Your task to perform on an android device: Turn on the flashlight Image 0: 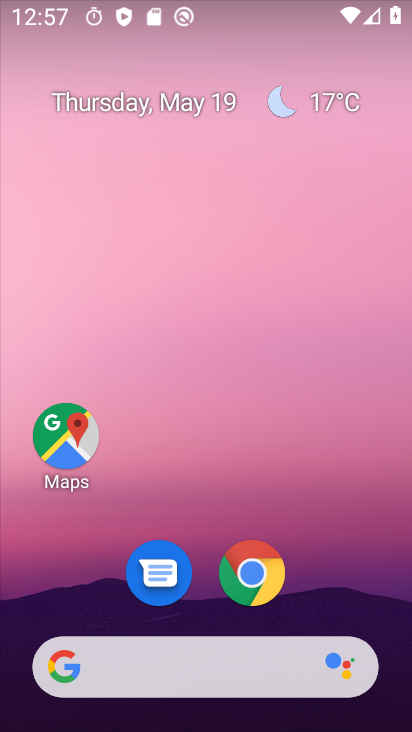
Step 0: drag from (269, 604) to (253, 37)
Your task to perform on an android device: Turn on the flashlight Image 1: 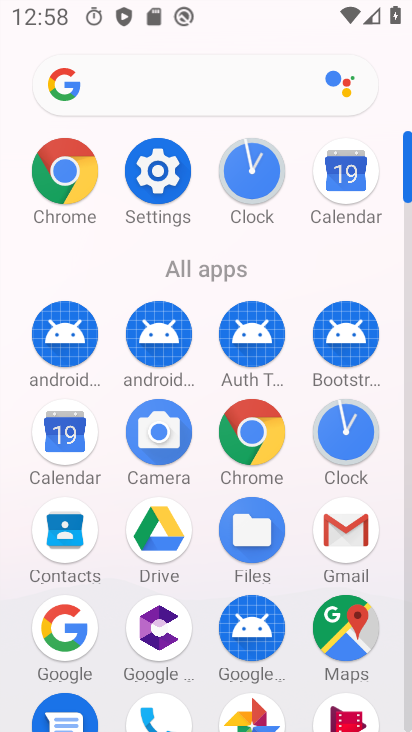
Step 1: click (157, 194)
Your task to perform on an android device: Turn on the flashlight Image 2: 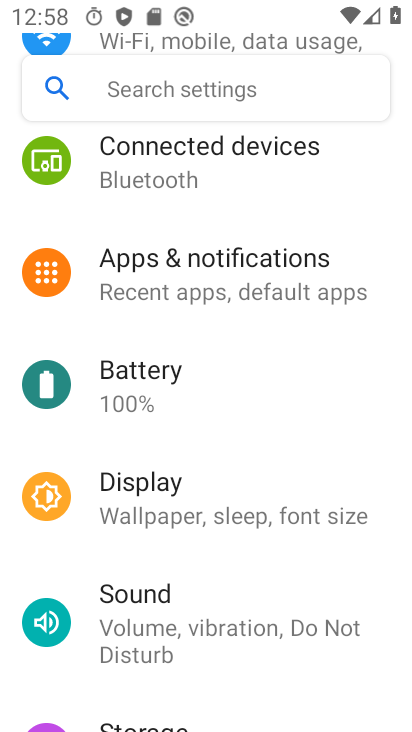
Step 2: click (187, 96)
Your task to perform on an android device: Turn on the flashlight Image 3: 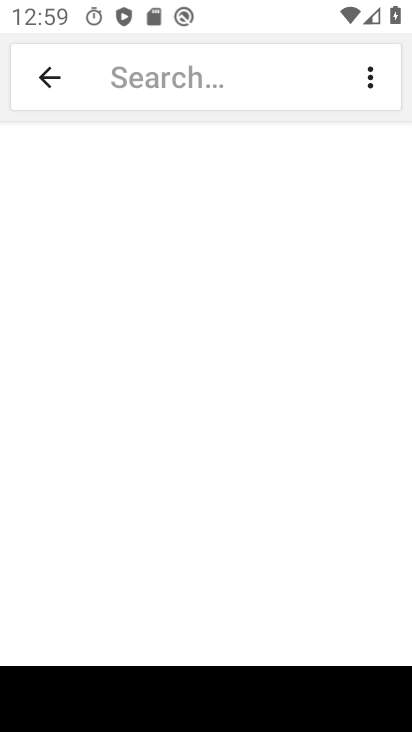
Step 3: type "fla"
Your task to perform on an android device: Turn on the flashlight Image 4: 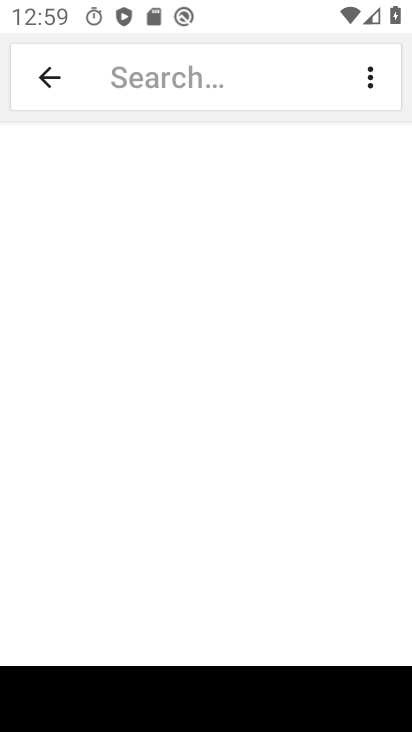
Step 4: click (184, 83)
Your task to perform on an android device: Turn on the flashlight Image 5: 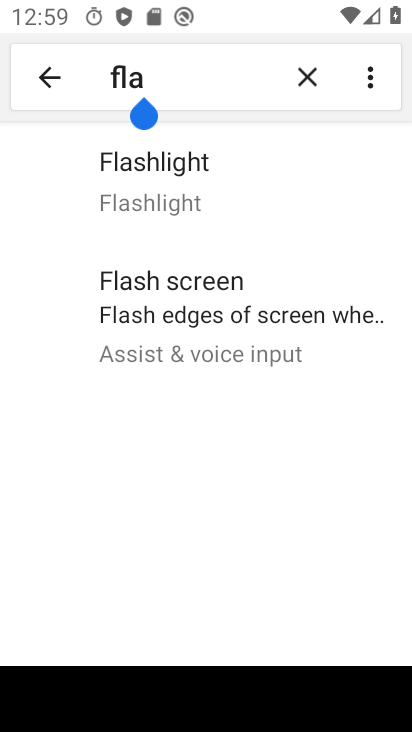
Step 5: type "flash"
Your task to perform on an android device: Turn on the flashlight Image 6: 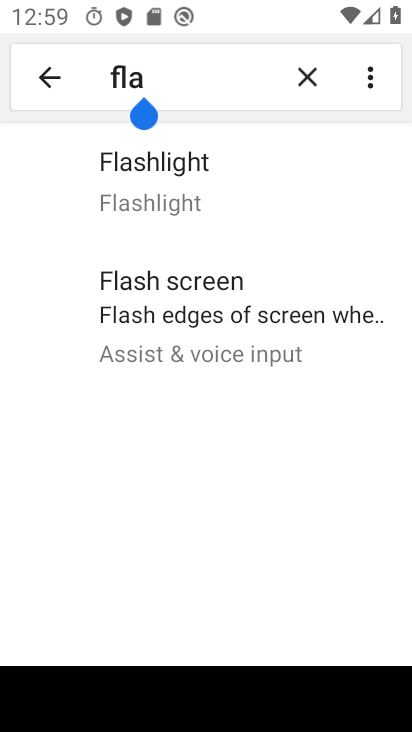
Step 6: click (176, 183)
Your task to perform on an android device: Turn on the flashlight Image 7: 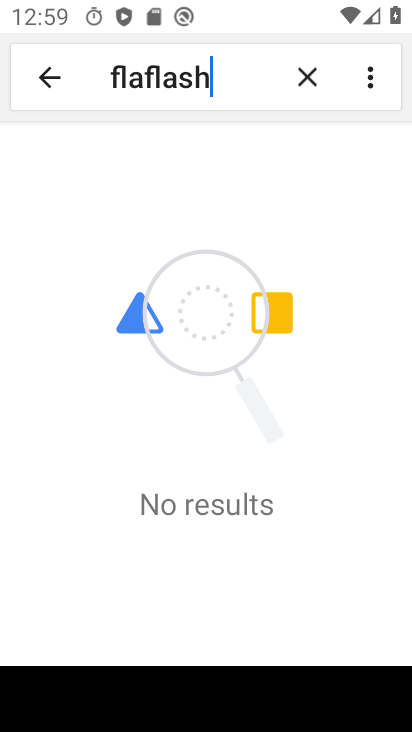
Step 7: click (292, 59)
Your task to perform on an android device: Turn on the flashlight Image 8: 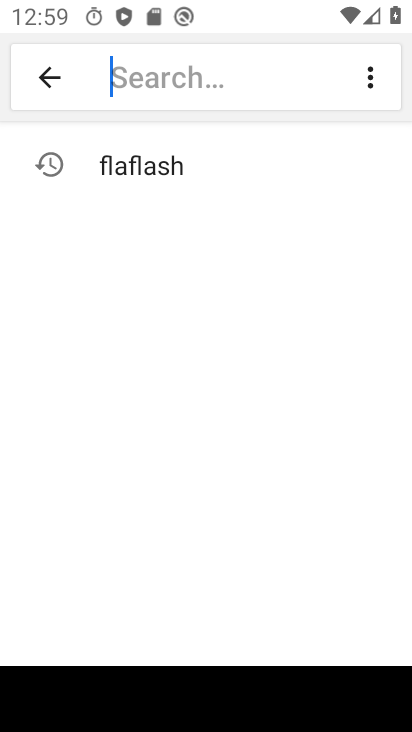
Step 8: type "flashlight"
Your task to perform on an android device: Turn on the flashlight Image 9: 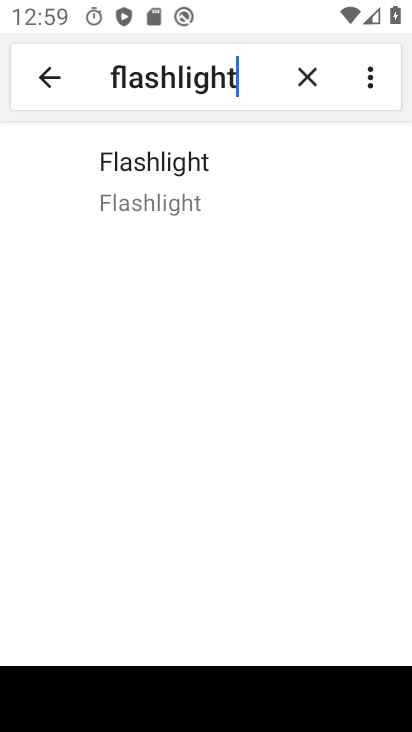
Step 9: click (146, 169)
Your task to perform on an android device: Turn on the flashlight Image 10: 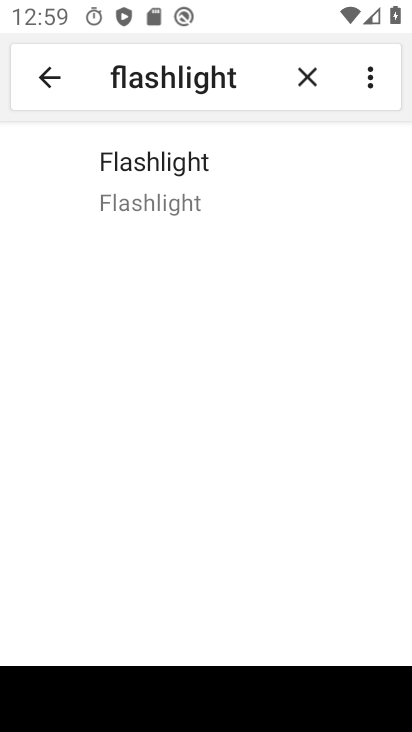
Step 10: click (149, 195)
Your task to perform on an android device: Turn on the flashlight Image 11: 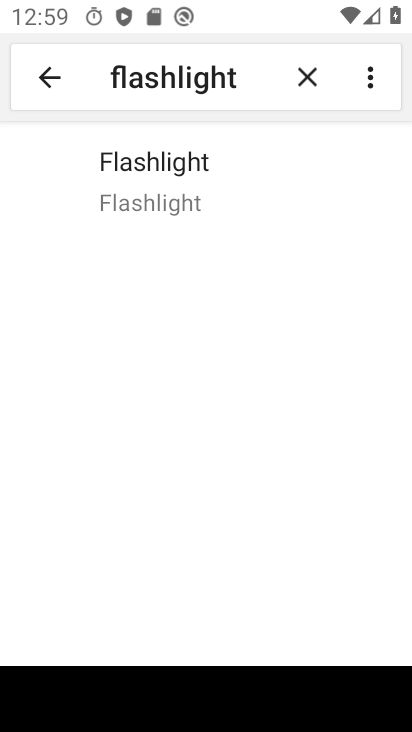
Step 11: task complete